Your task to perform on an android device: Open the stopwatch Image 0: 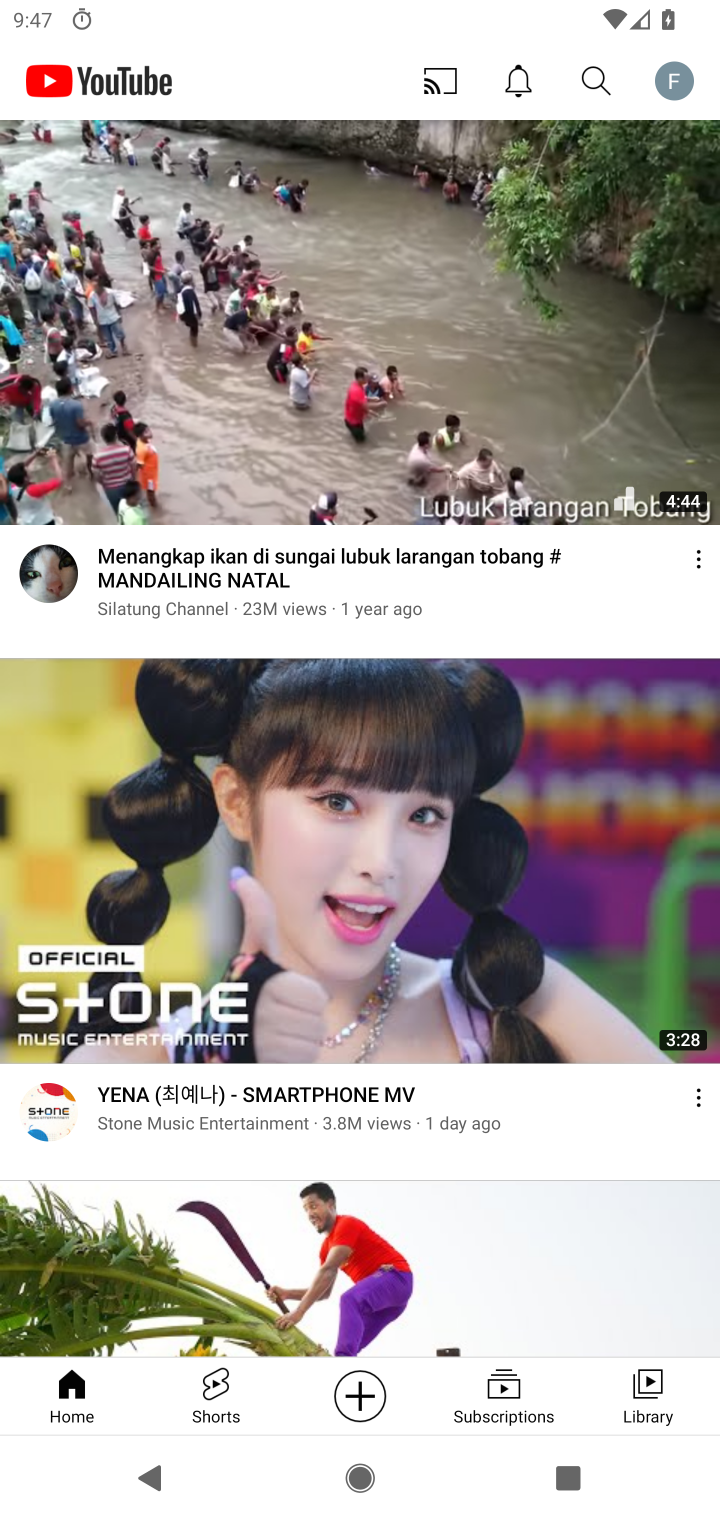
Step 0: press home button
Your task to perform on an android device: Open the stopwatch Image 1: 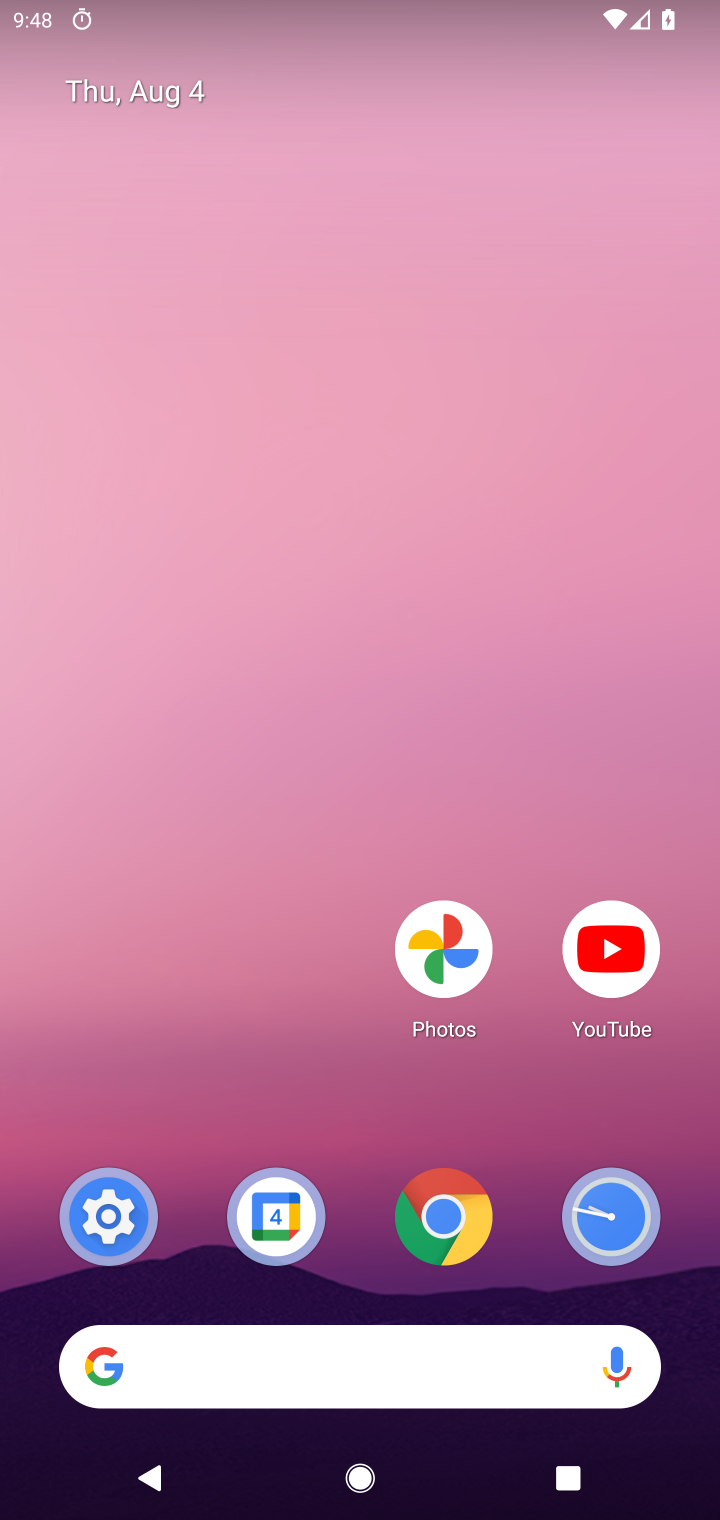
Step 1: drag from (354, 947) to (396, 287)
Your task to perform on an android device: Open the stopwatch Image 2: 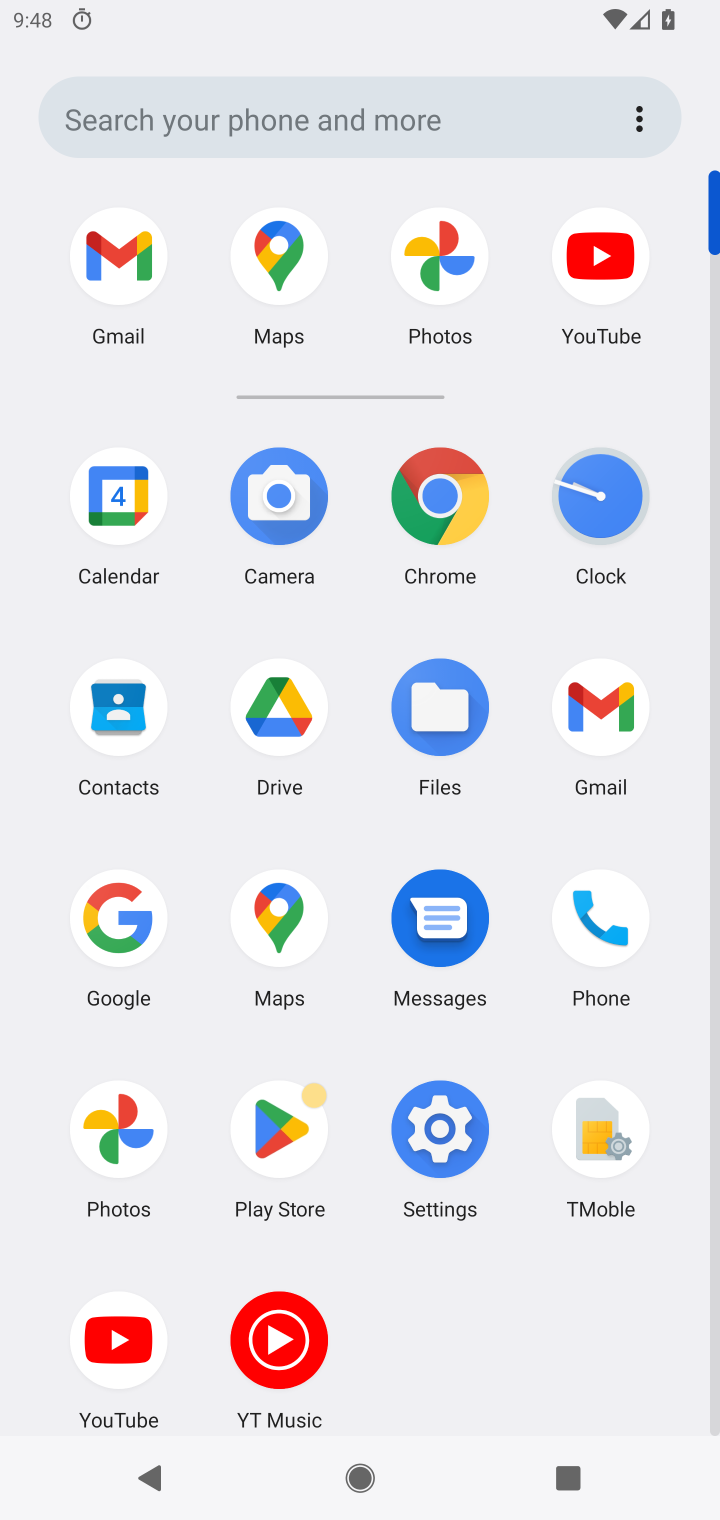
Step 2: click (606, 497)
Your task to perform on an android device: Open the stopwatch Image 3: 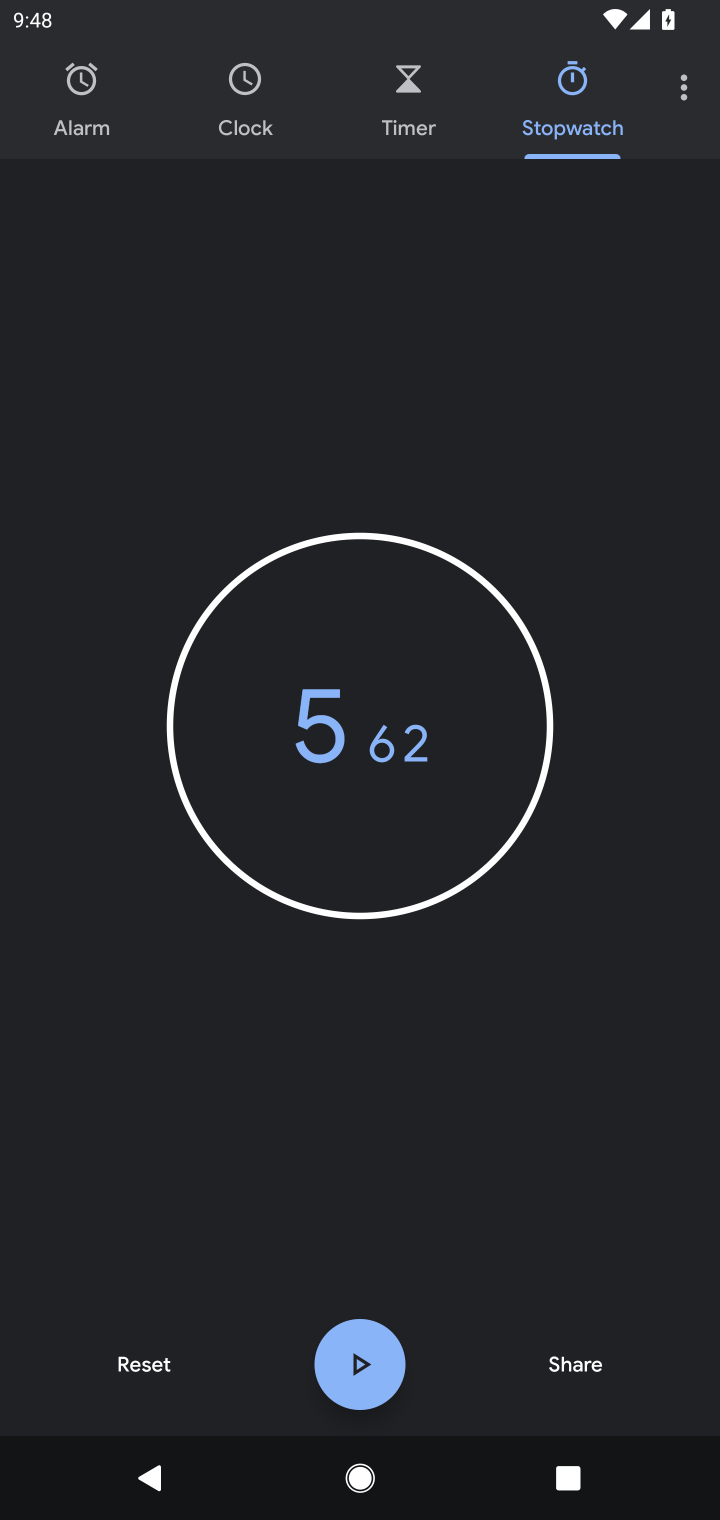
Step 3: task complete